Your task to perform on an android device: search for starred emails in the gmail app Image 0: 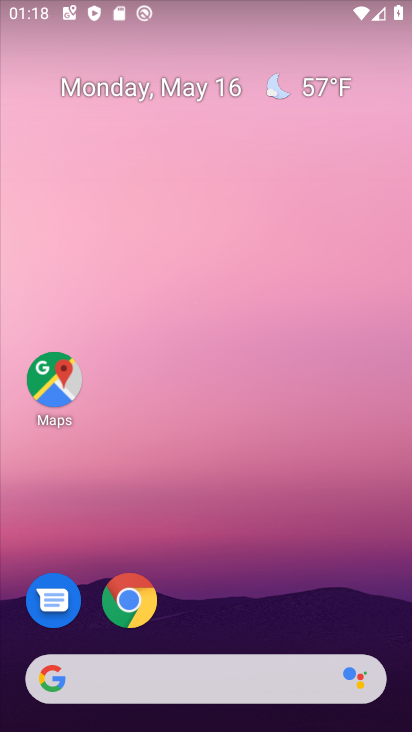
Step 0: drag from (194, 643) to (296, 79)
Your task to perform on an android device: search for starred emails in the gmail app Image 1: 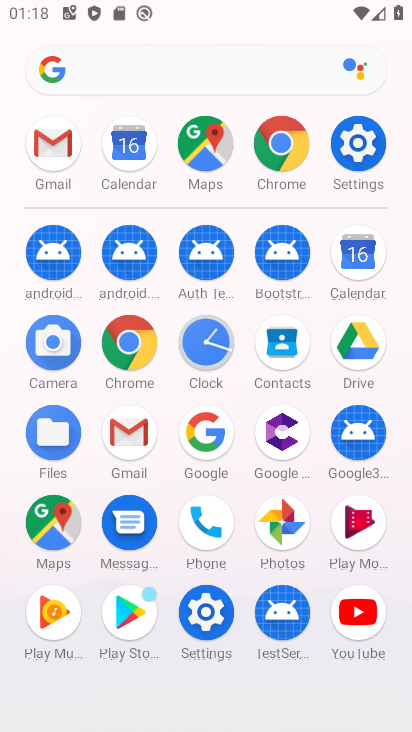
Step 1: click (52, 136)
Your task to perform on an android device: search for starred emails in the gmail app Image 2: 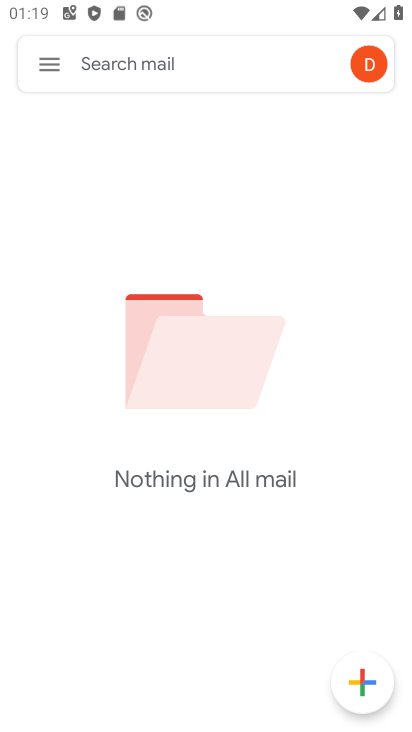
Step 2: click (48, 63)
Your task to perform on an android device: search for starred emails in the gmail app Image 3: 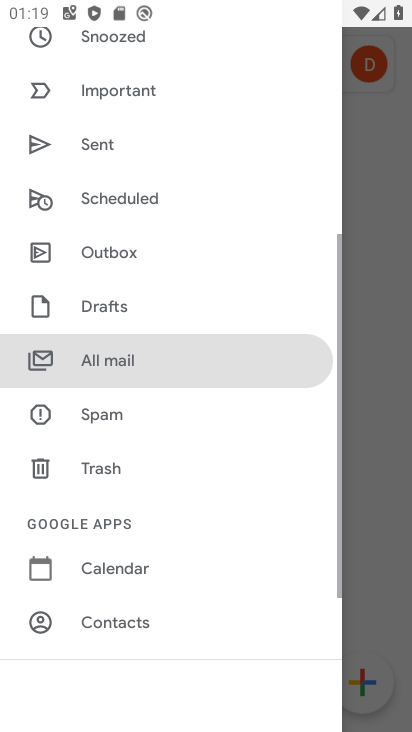
Step 3: drag from (132, 75) to (120, 567)
Your task to perform on an android device: search for starred emails in the gmail app Image 4: 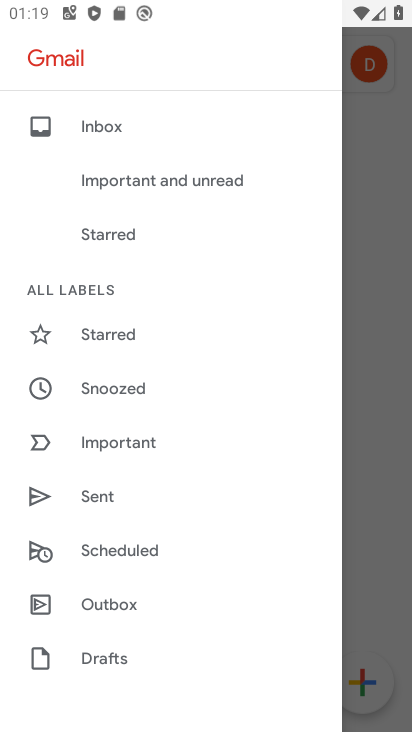
Step 4: click (110, 321)
Your task to perform on an android device: search for starred emails in the gmail app Image 5: 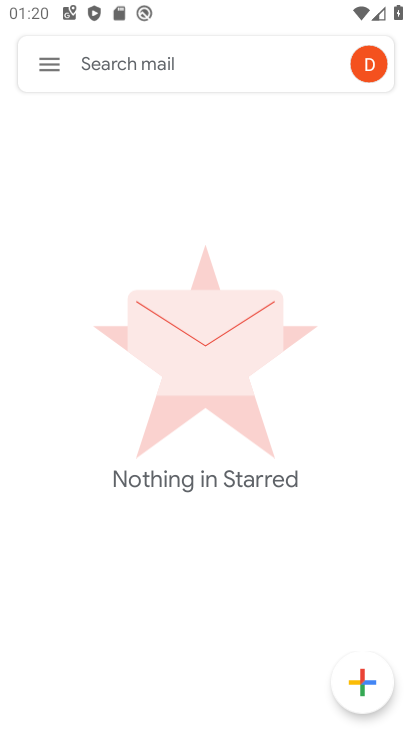
Step 5: task complete